Your task to perform on an android device: create a new album in the google photos Image 0: 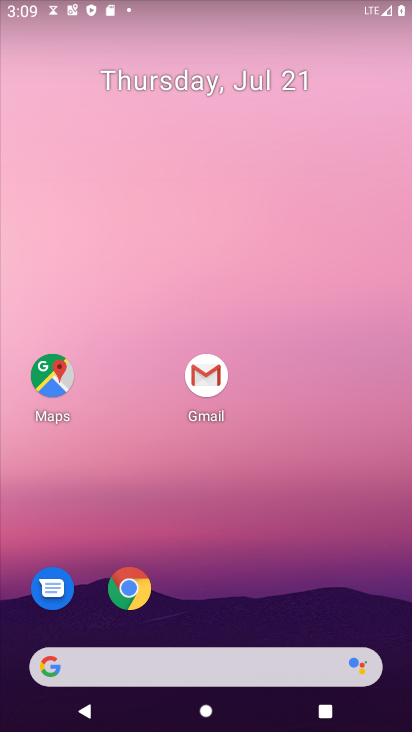
Step 0: drag from (200, 488) to (189, 272)
Your task to perform on an android device: create a new album in the google photos Image 1: 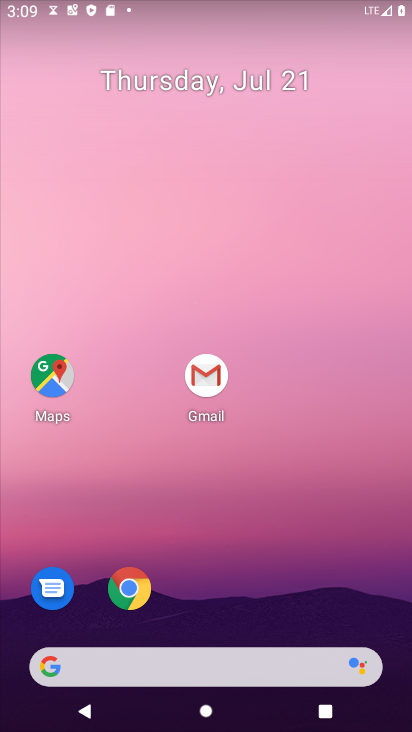
Step 1: drag from (222, 553) to (266, 314)
Your task to perform on an android device: create a new album in the google photos Image 2: 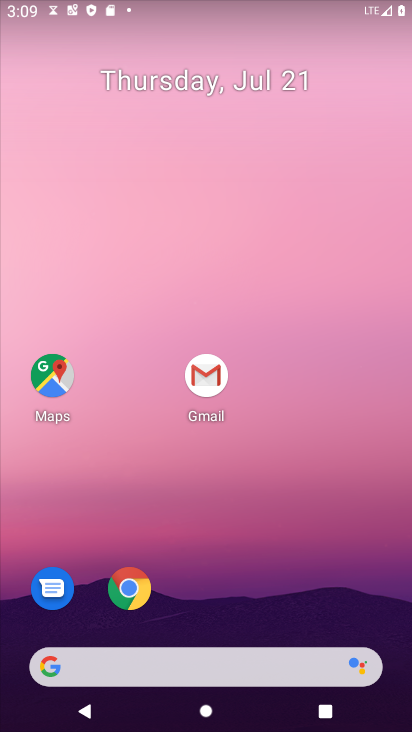
Step 2: drag from (219, 623) to (190, 401)
Your task to perform on an android device: create a new album in the google photos Image 3: 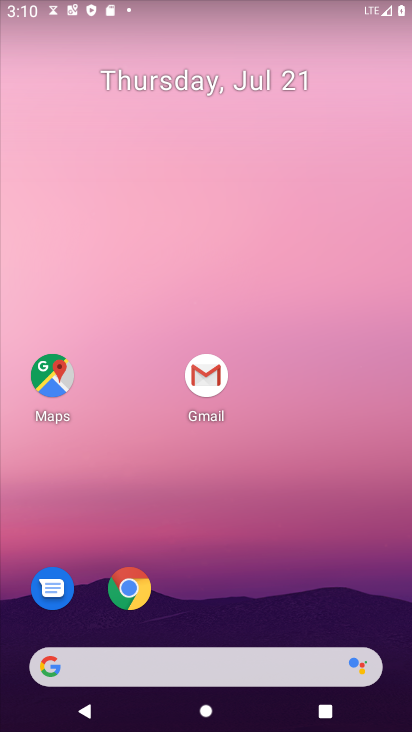
Step 3: drag from (199, 567) to (243, 127)
Your task to perform on an android device: create a new album in the google photos Image 4: 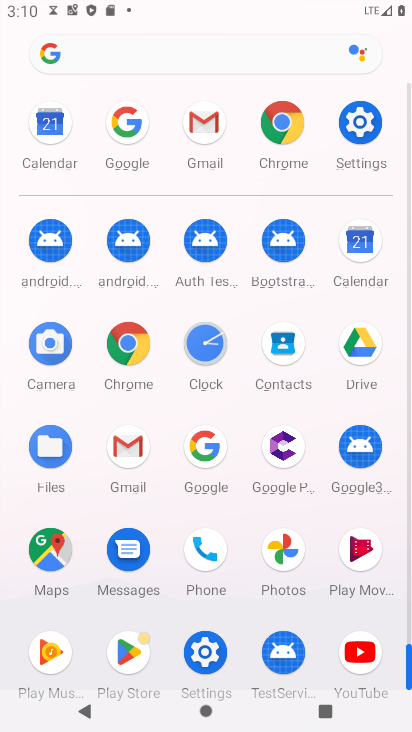
Step 4: drag from (207, 580) to (199, 221)
Your task to perform on an android device: create a new album in the google photos Image 5: 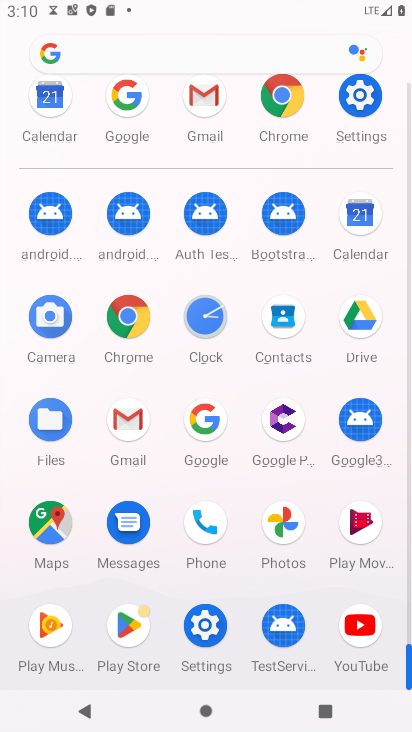
Step 5: drag from (198, 122) to (211, 731)
Your task to perform on an android device: create a new album in the google photos Image 6: 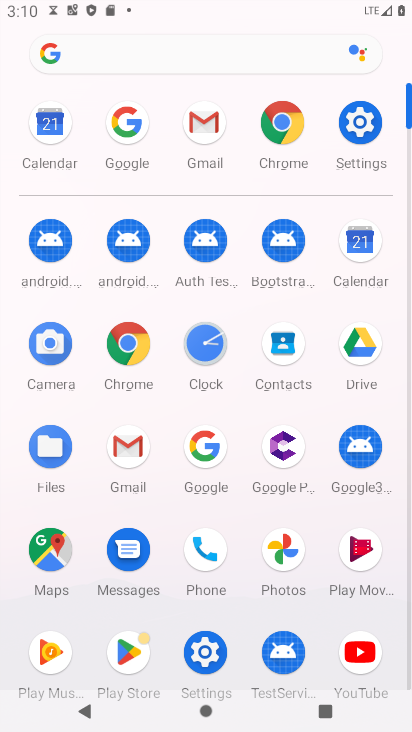
Step 6: click (279, 540)
Your task to perform on an android device: create a new album in the google photos Image 7: 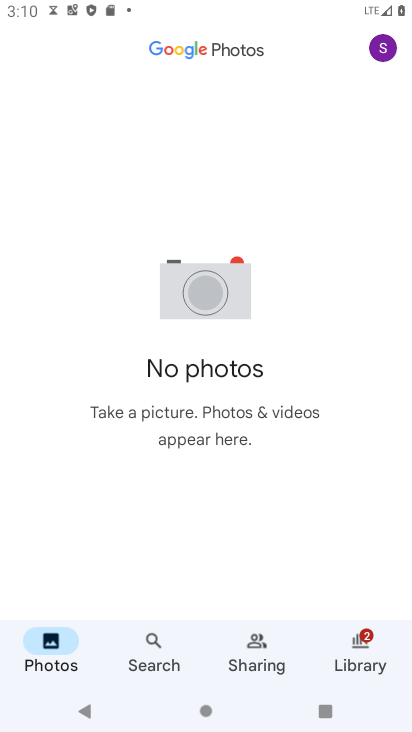
Step 7: drag from (204, 584) to (302, 84)
Your task to perform on an android device: create a new album in the google photos Image 8: 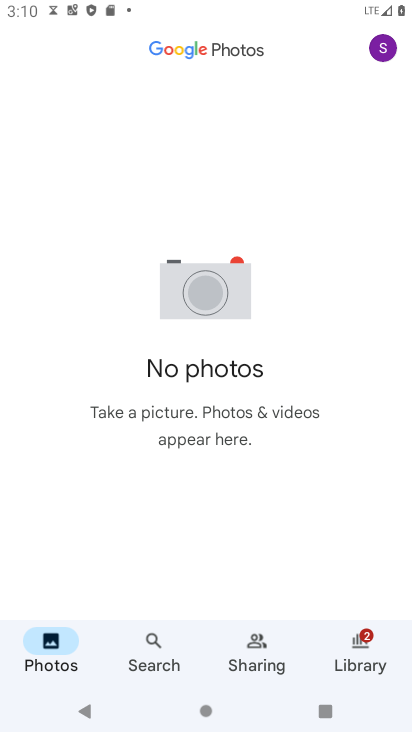
Step 8: drag from (200, 534) to (217, 196)
Your task to perform on an android device: create a new album in the google photos Image 9: 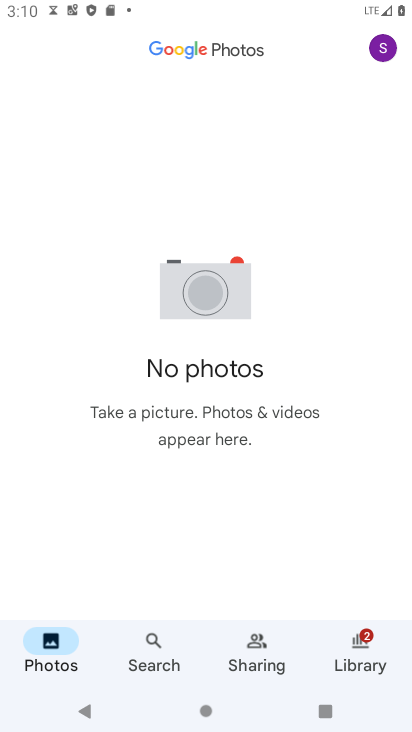
Step 9: drag from (252, 464) to (235, 296)
Your task to perform on an android device: create a new album in the google photos Image 10: 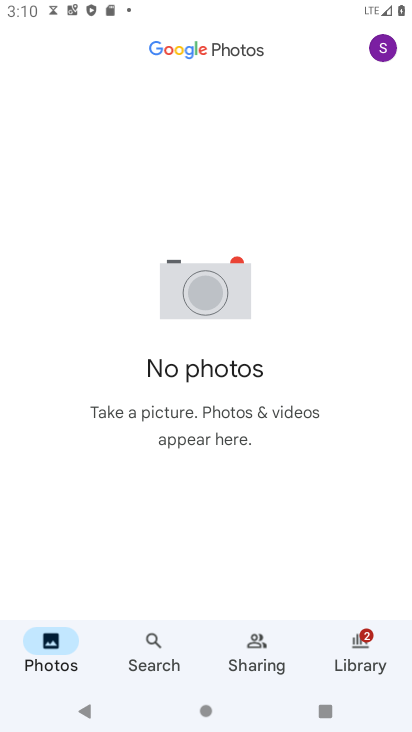
Step 10: drag from (209, 536) to (209, 305)
Your task to perform on an android device: create a new album in the google photos Image 11: 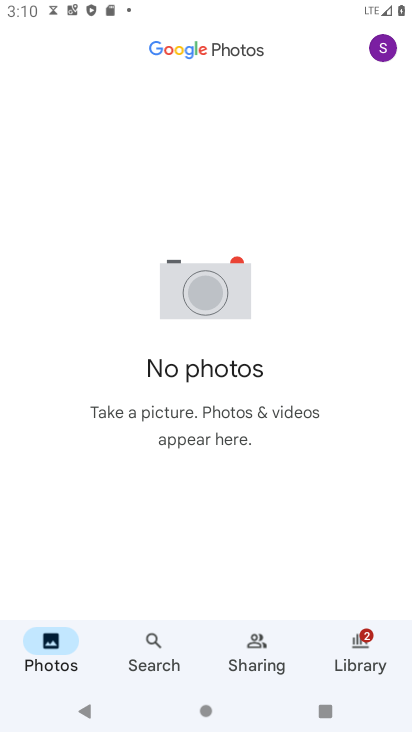
Step 11: drag from (209, 356) to (216, 204)
Your task to perform on an android device: create a new album in the google photos Image 12: 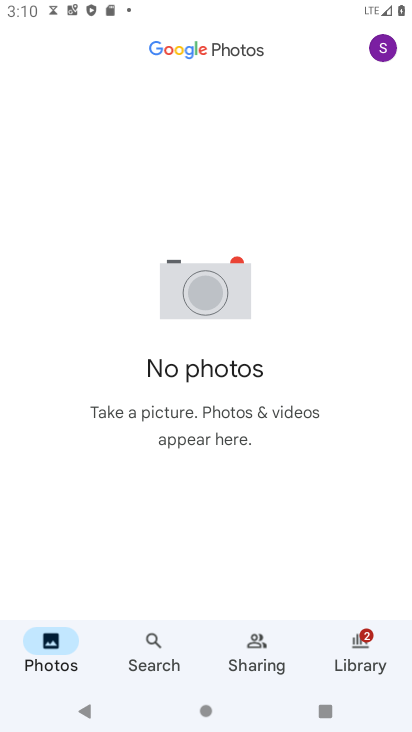
Step 12: drag from (252, 502) to (275, 340)
Your task to perform on an android device: create a new album in the google photos Image 13: 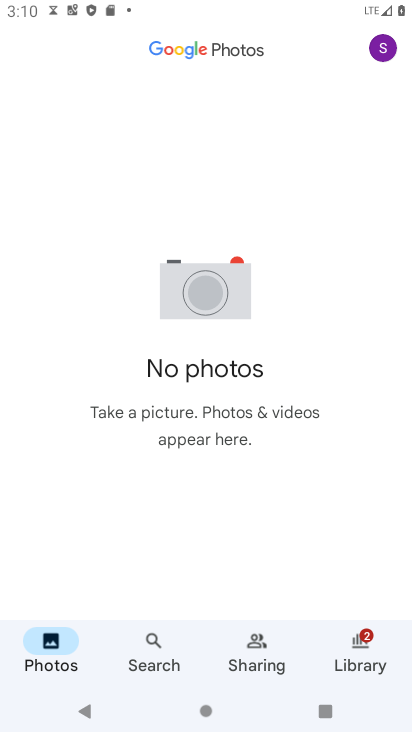
Step 13: drag from (258, 510) to (275, 277)
Your task to perform on an android device: create a new album in the google photos Image 14: 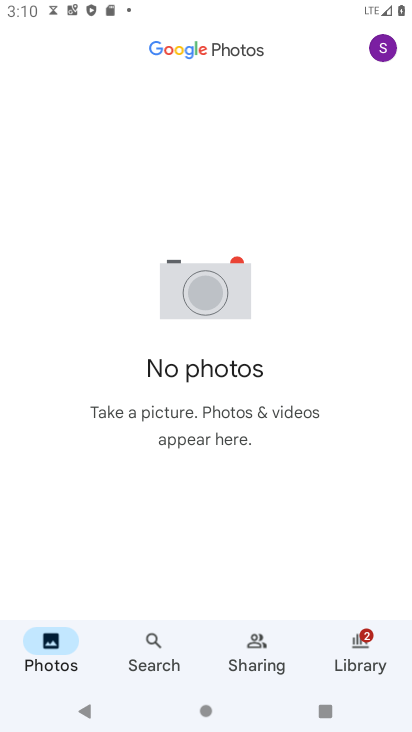
Step 14: drag from (246, 575) to (272, 411)
Your task to perform on an android device: create a new album in the google photos Image 15: 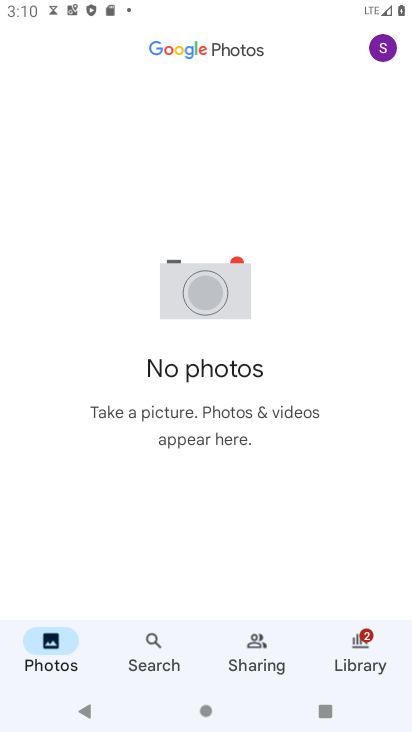
Step 15: drag from (220, 524) to (253, 216)
Your task to perform on an android device: create a new album in the google photos Image 16: 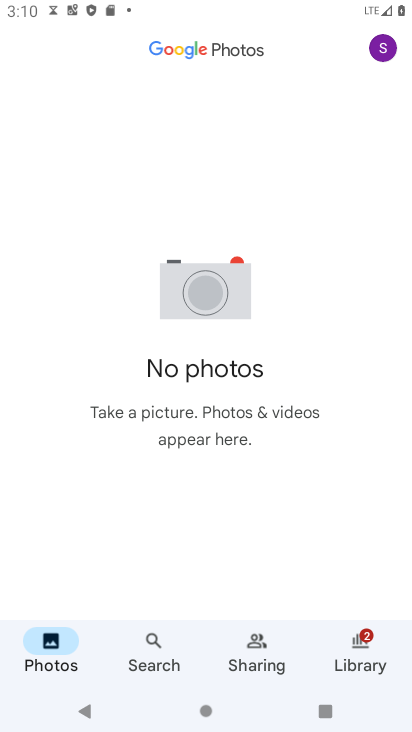
Step 16: drag from (259, 498) to (281, 345)
Your task to perform on an android device: create a new album in the google photos Image 17: 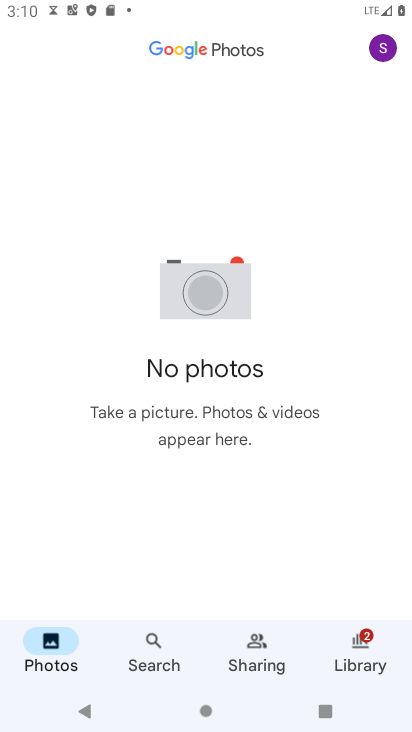
Step 17: drag from (267, 543) to (288, 415)
Your task to perform on an android device: create a new album in the google photos Image 18: 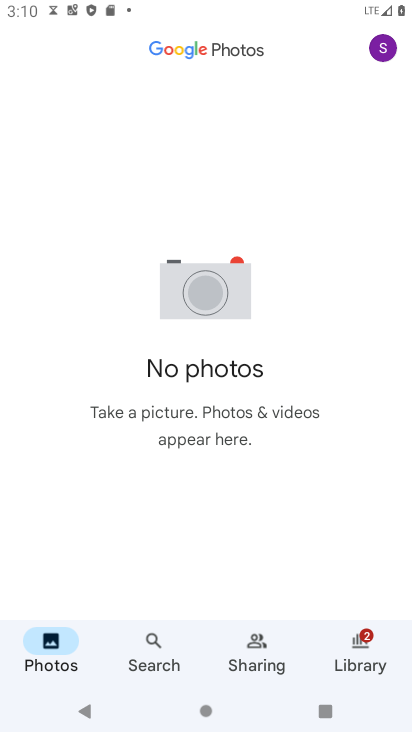
Step 18: drag from (228, 543) to (230, 301)
Your task to perform on an android device: create a new album in the google photos Image 19: 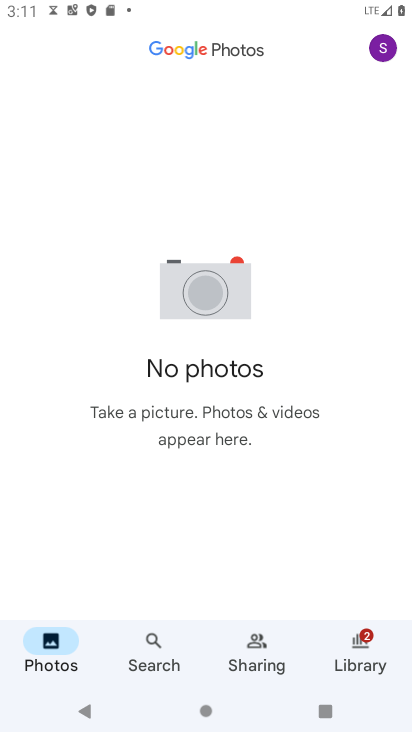
Step 19: drag from (187, 512) to (215, 297)
Your task to perform on an android device: create a new album in the google photos Image 20: 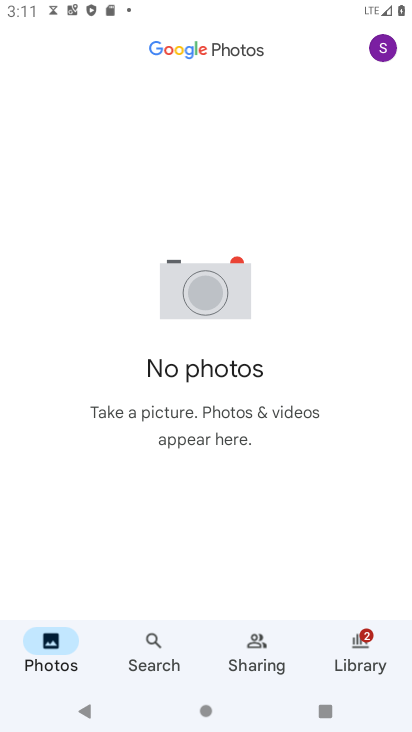
Step 20: click (334, 655)
Your task to perform on an android device: create a new album in the google photos Image 21: 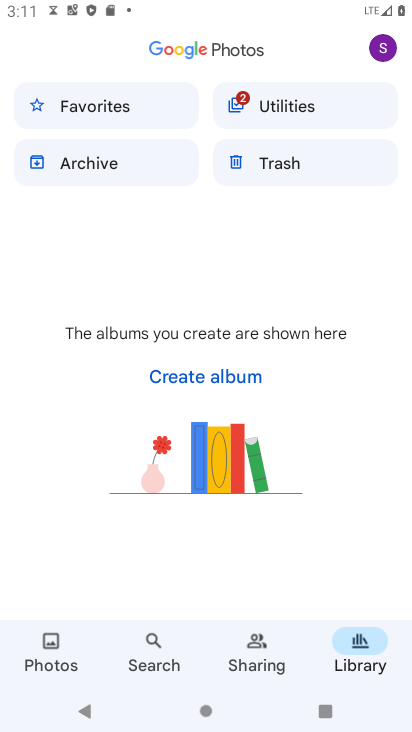
Step 21: drag from (174, 213) to (254, 510)
Your task to perform on an android device: create a new album in the google photos Image 22: 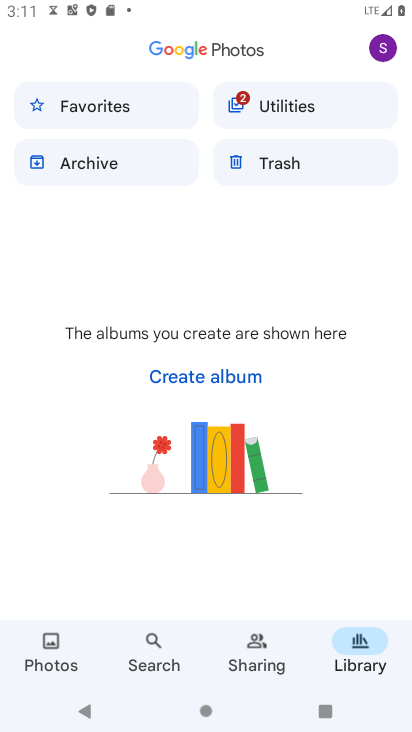
Step 22: drag from (198, 299) to (254, 588)
Your task to perform on an android device: create a new album in the google photos Image 23: 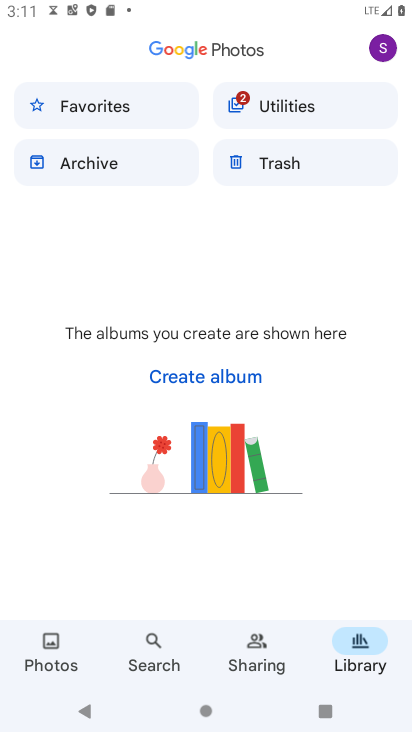
Step 23: drag from (198, 193) to (283, 515)
Your task to perform on an android device: create a new album in the google photos Image 24: 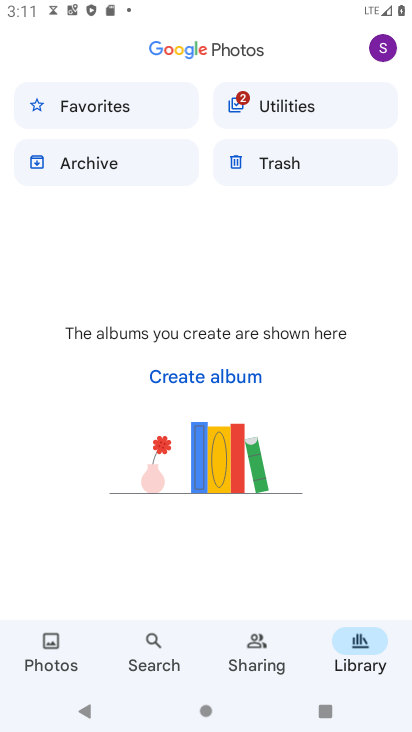
Step 24: click (171, 637)
Your task to perform on an android device: create a new album in the google photos Image 25: 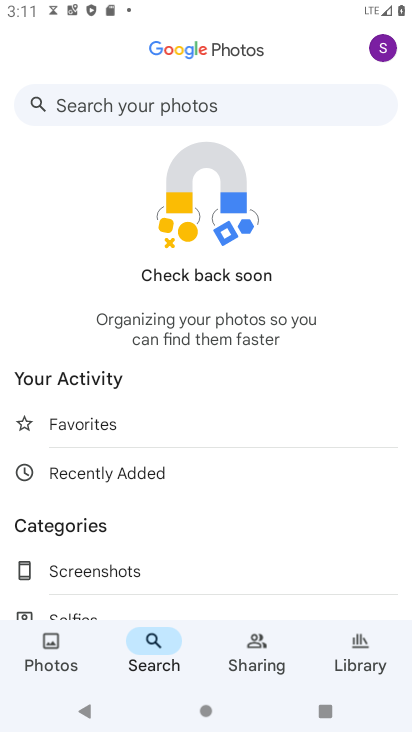
Step 25: click (363, 659)
Your task to perform on an android device: create a new album in the google photos Image 26: 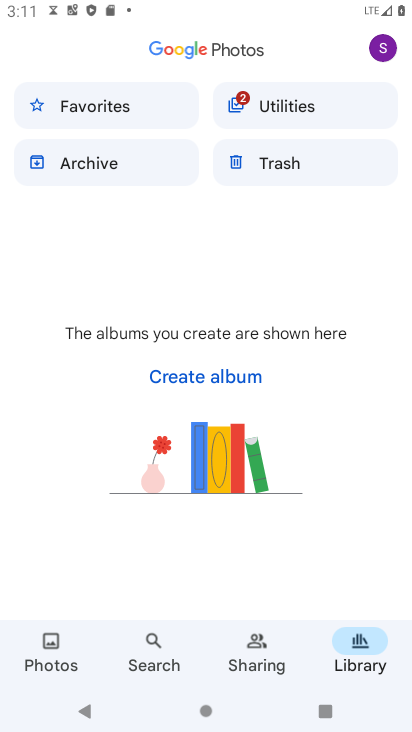
Step 26: click (196, 379)
Your task to perform on an android device: create a new album in the google photos Image 27: 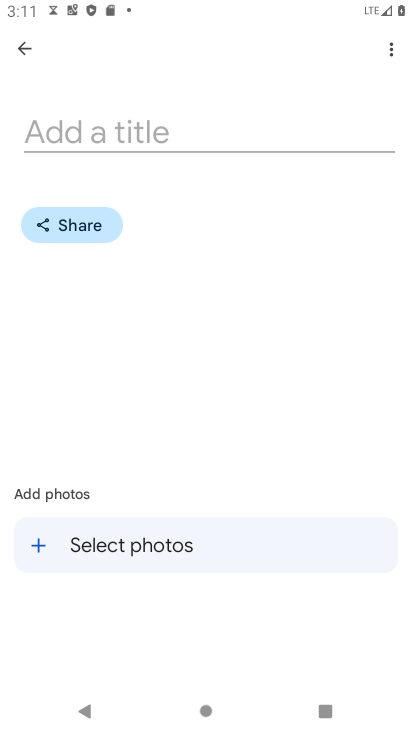
Step 27: click (98, 118)
Your task to perform on an android device: create a new album in the google photos Image 28: 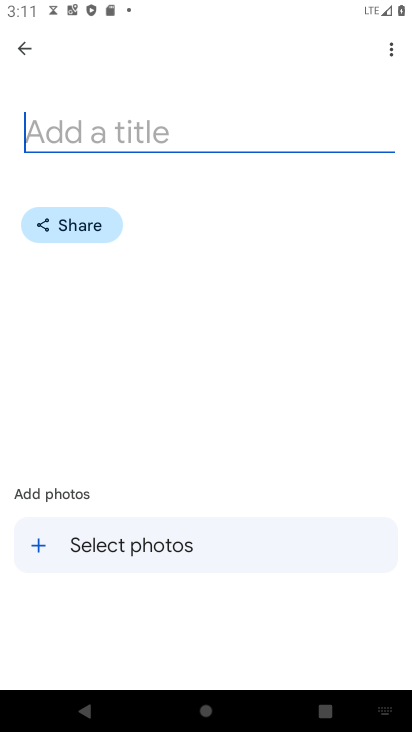
Step 28: type ""
Your task to perform on an android device: create a new album in the google photos Image 29: 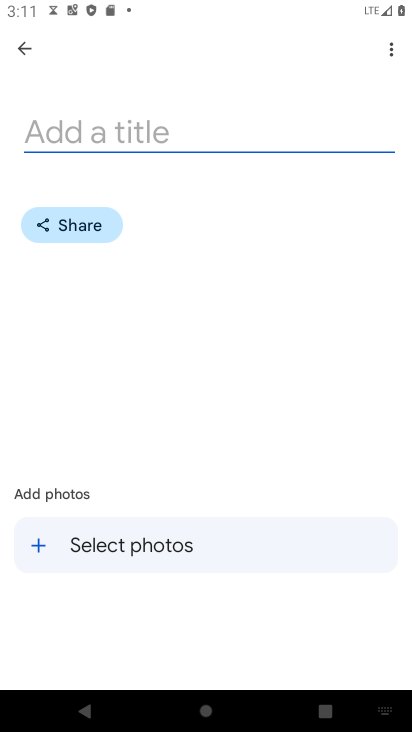
Step 29: type "mskdja"
Your task to perform on an android device: create a new album in the google photos Image 30: 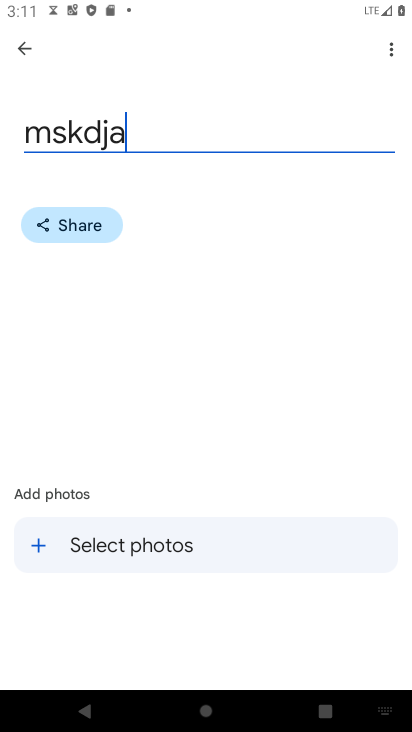
Step 30: click (30, 555)
Your task to perform on an android device: create a new album in the google photos Image 31: 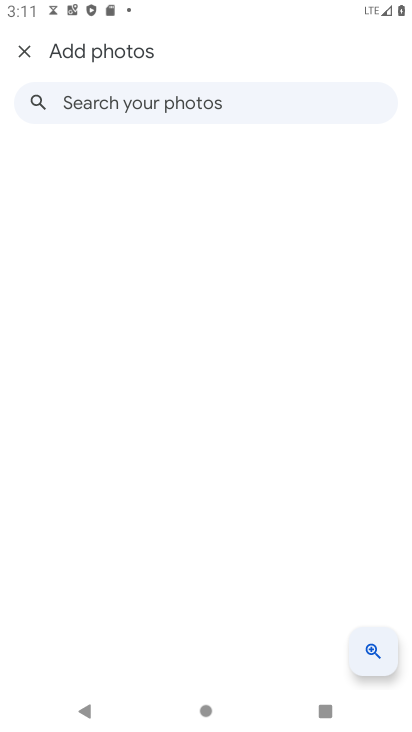
Step 31: task complete